Your task to perform on an android device: remove spam from my inbox in the gmail app Image 0: 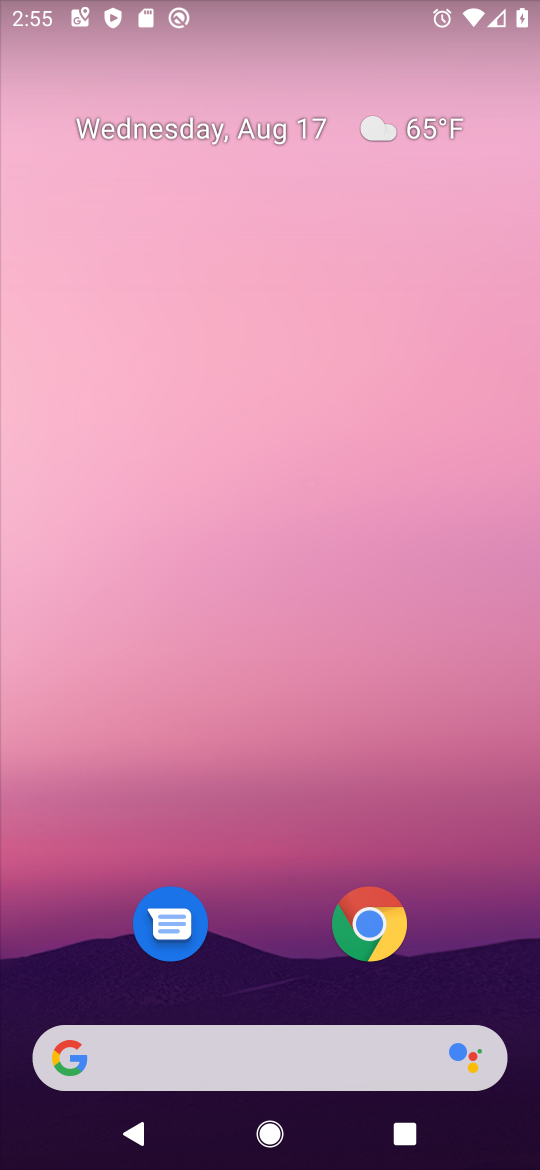
Step 0: drag from (222, 1068) to (233, 132)
Your task to perform on an android device: remove spam from my inbox in the gmail app Image 1: 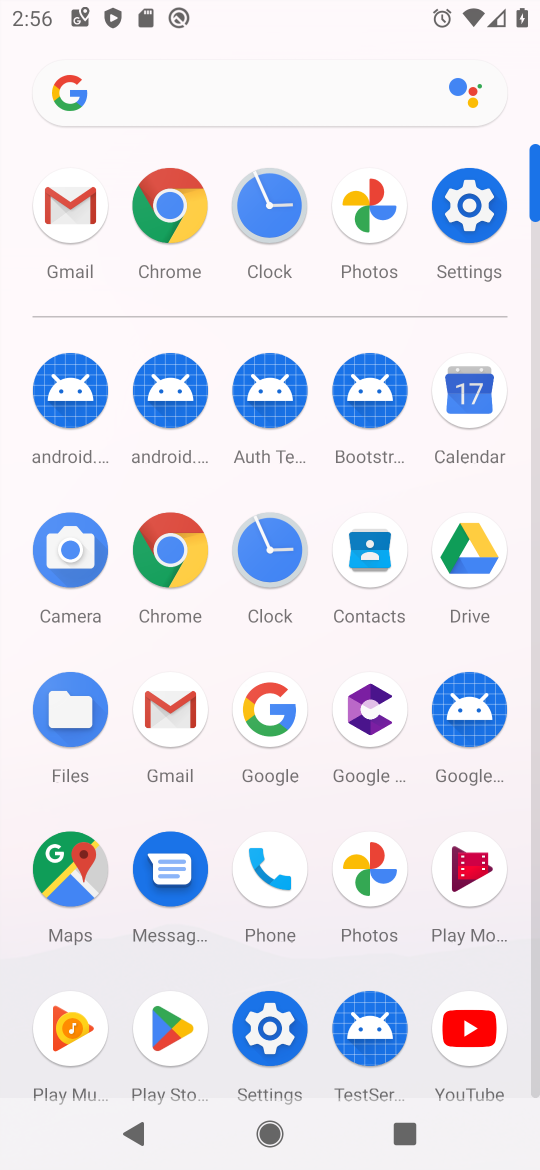
Step 1: click (72, 205)
Your task to perform on an android device: remove spam from my inbox in the gmail app Image 2: 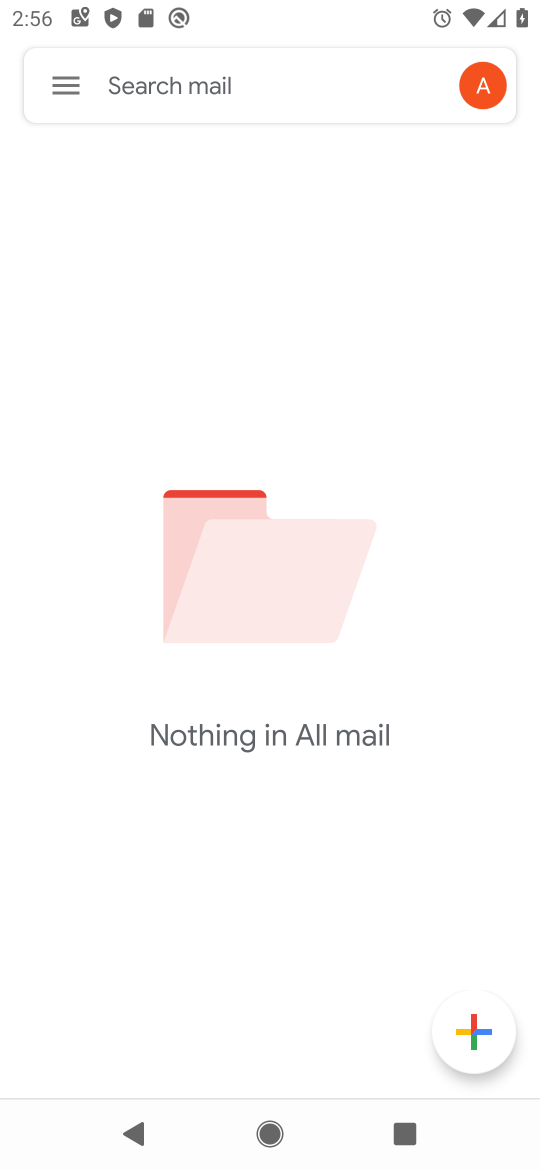
Step 2: click (69, 93)
Your task to perform on an android device: remove spam from my inbox in the gmail app Image 3: 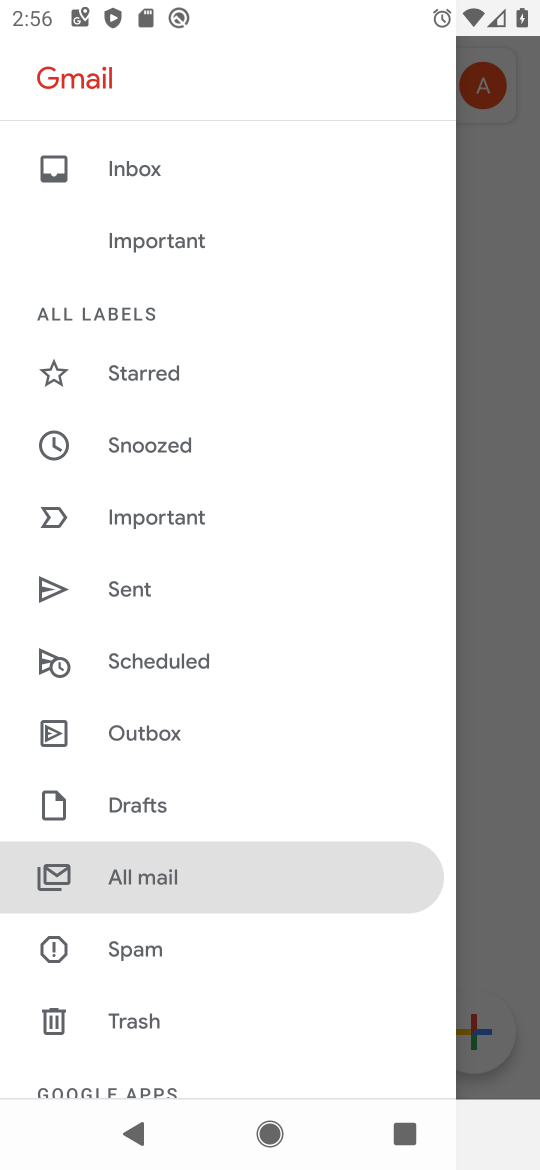
Step 3: click (132, 942)
Your task to perform on an android device: remove spam from my inbox in the gmail app Image 4: 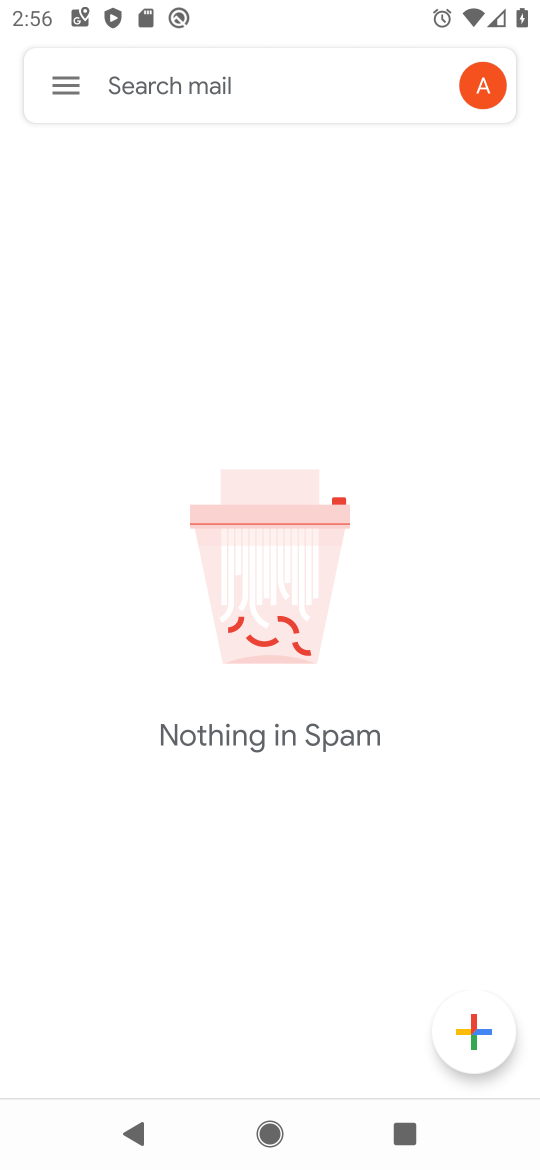
Step 4: task complete